Your task to perform on an android device: Go to location settings Image 0: 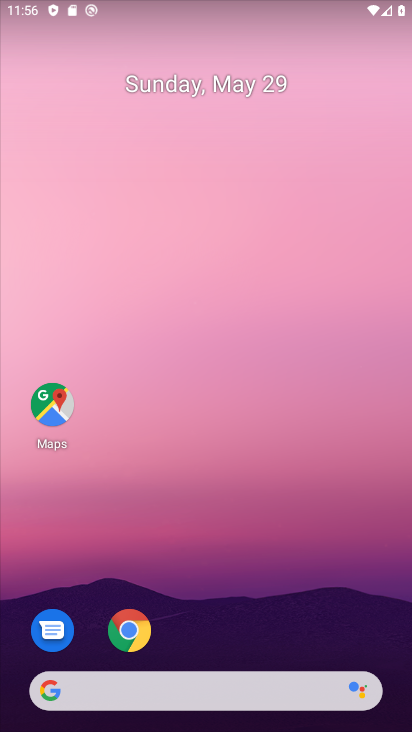
Step 0: drag from (123, 727) to (141, 100)
Your task to perform on an android device: Go to location settings Image 1: 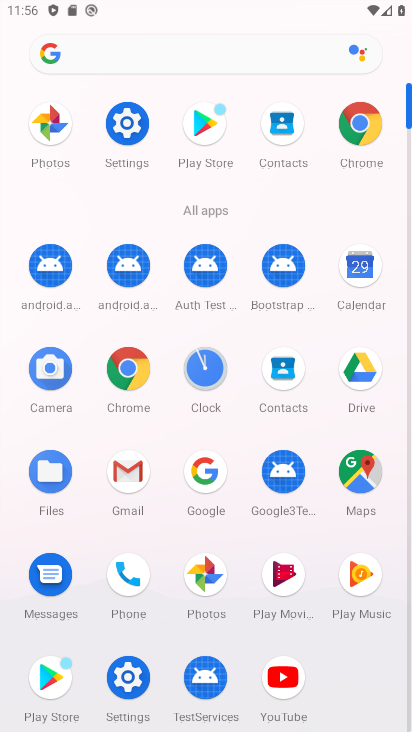
Step 1: click (132, 137)
Your task to perform on an android device: Go to location settings Image 2: 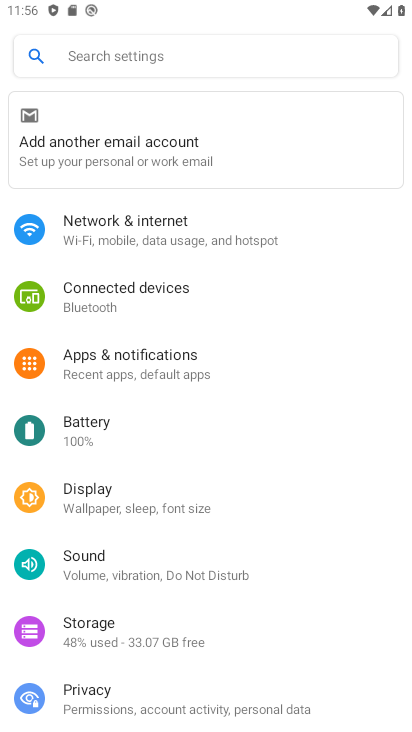
Step 2: drag from (282, 619) to (254, 184)
Your task to perform on an android device: Go to location settings Image 3: 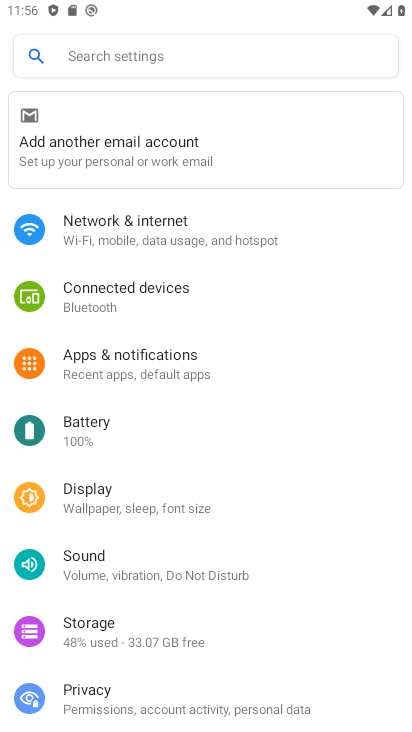
Step 3: drag from (381, 712) to (383, 245)
Your task to perform on an android device: Go to location settings Image 4: 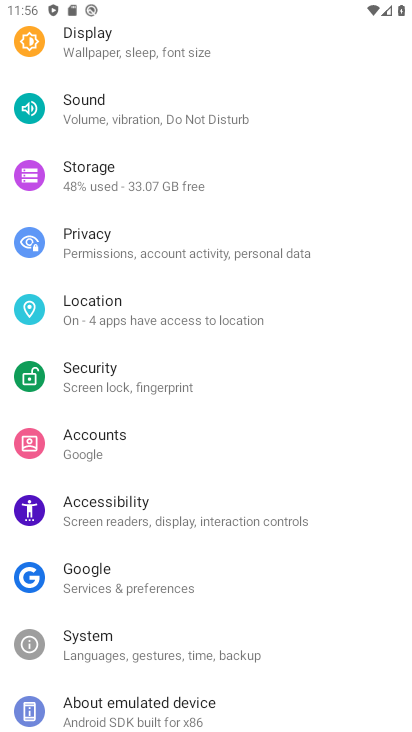
Step 4: click (177, 319)
Your task to perform on an android device: Go to location settings Image 5: 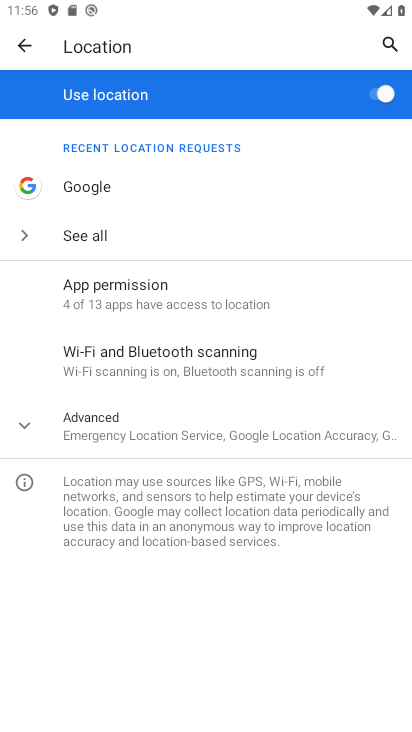
Step 5: task complete